Your task to perform on an android device: Open wifi settings Image 0: 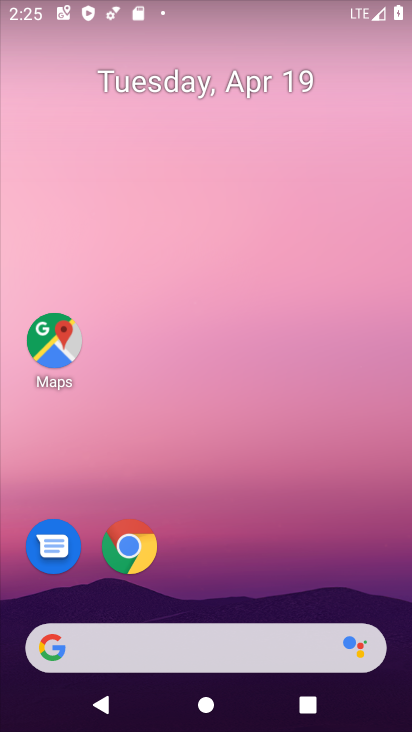
Step 0: drag from (197, 629) to (22, 244)
Your task to perform on an android device: Open wifi settings Image 1: 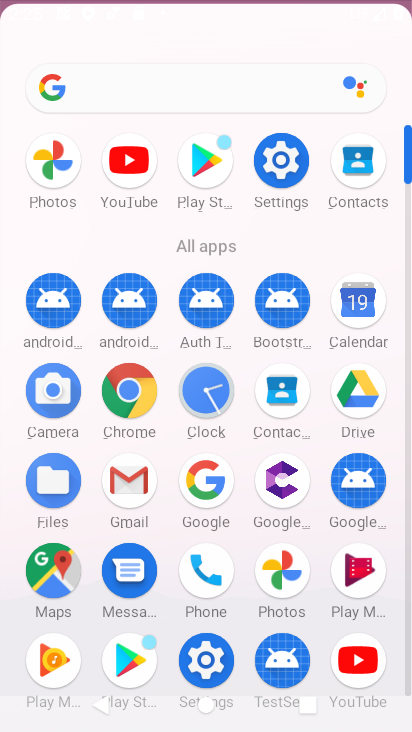
Step 1: click (213, 644)
Your task to perform on an android device: Open wifi settings Image 2: 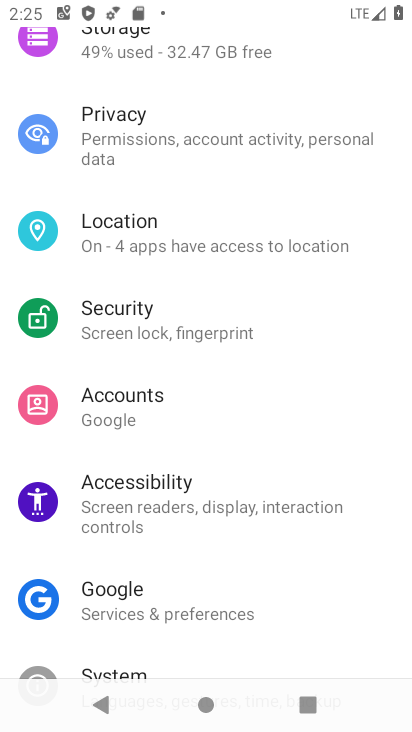
Step 2: drag from (205, 284) to (244, 729)
Your task to perform on an android device: Open wifi settings Image 3: 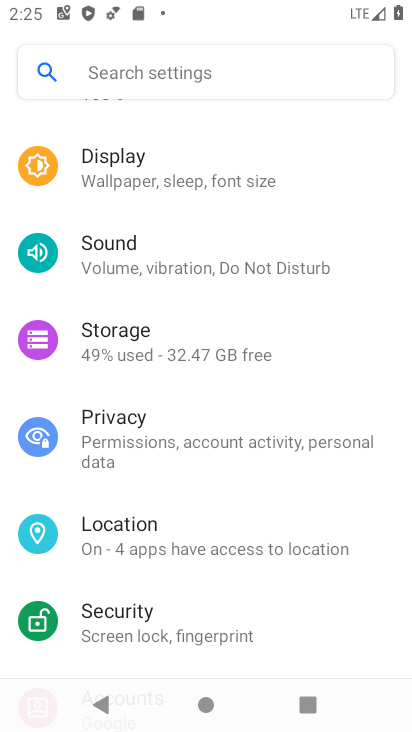
Step 3: drag from (128, 188) to (163, 622)
Your task to perform on an android device: Open wifi settings Image 4: 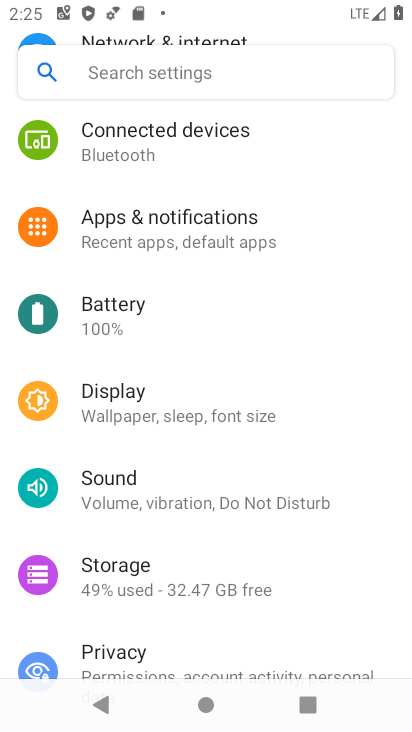
Step 4: drag from (69, 274) to (39, 558)
Your task to perform on an android device: Open wifi settings Image 5: 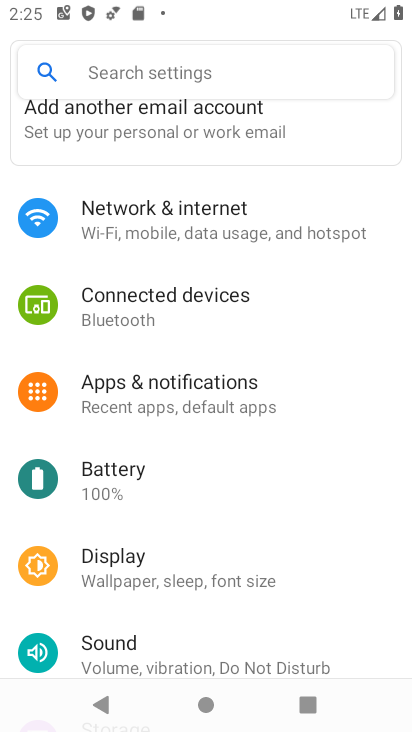
Step 5: click (148, 221)
Your task to perform on an android device: Open wifi settings Image 6: 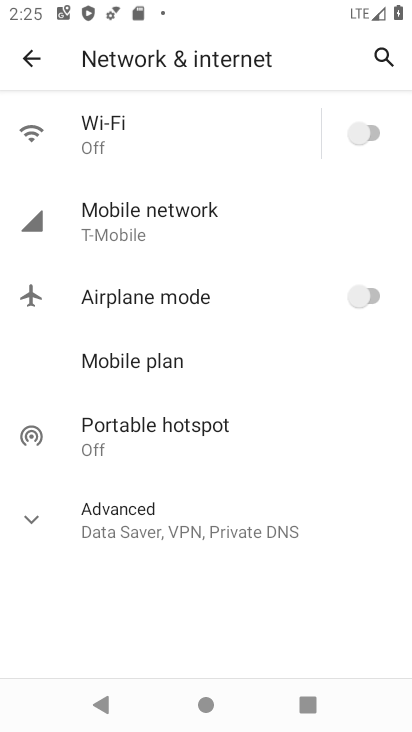
Step 6: click (121, 120)
Your task to perform on an android device: Open wifi settings Image 7: 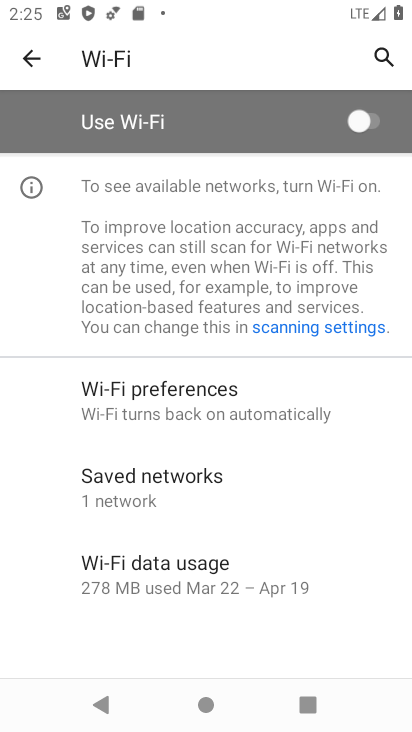
Step 7: task complete